Your task to perform on an android device: allow notifications from all sites in the chrome app Image 0: 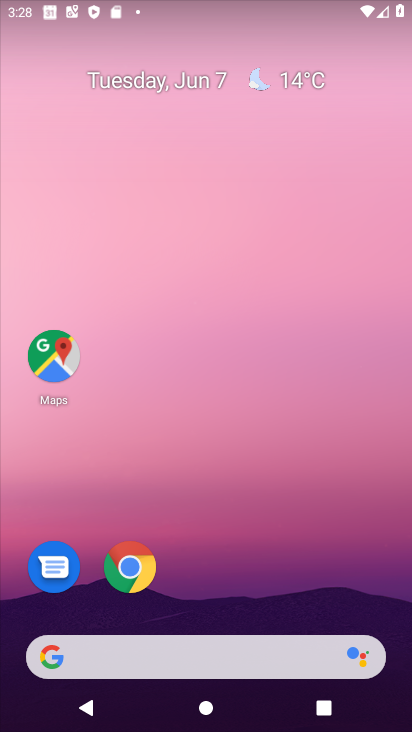
Step 0: click (120, 575)
Your task to perform on an android device: allow notifications from all sites in the chrome app Image 1: 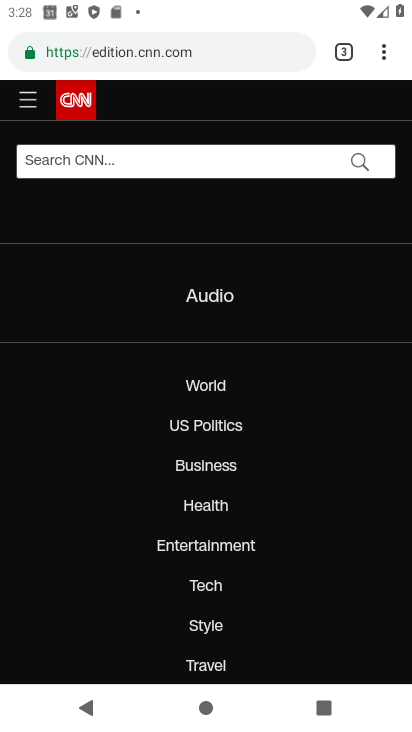
Step 1: click (385, 39)
Your task to perform on an android device: allow notifications from all sites in the chrome app Image 2: 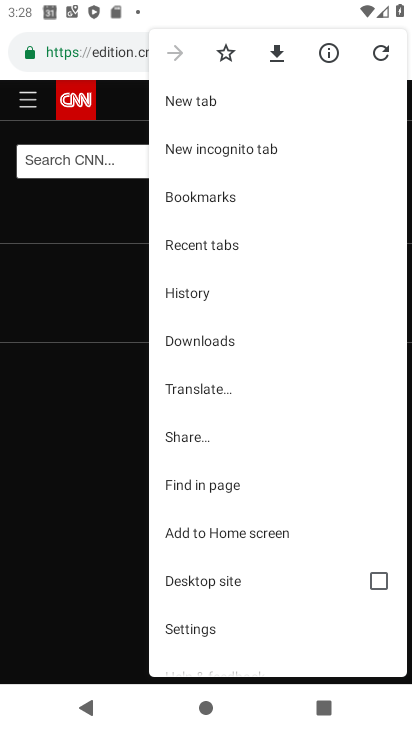
Step 2: click (234, 630)
Your task to perform on an android device: allow notifications from all sites in the chrome app Image 3: 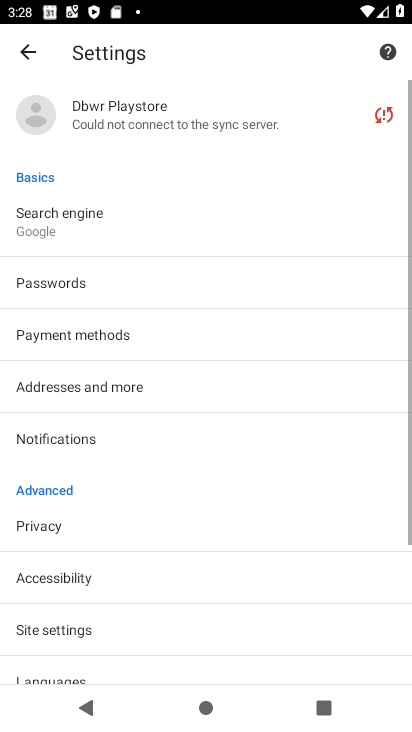
Step 3: drag from (210, 556) to (204, 312)
Your task to perform on an android device: allow notifications from all sites in the chrome app Image 4: 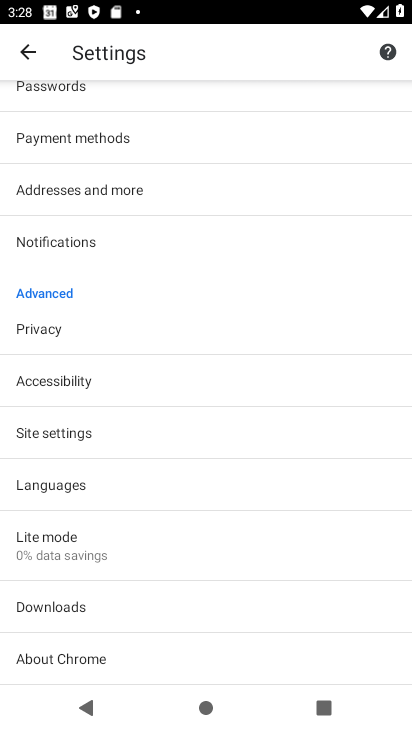
Step 4: click (106, 434)
Your task to perform on an android device: allow notifications from all sites in the chrome app Image 5: 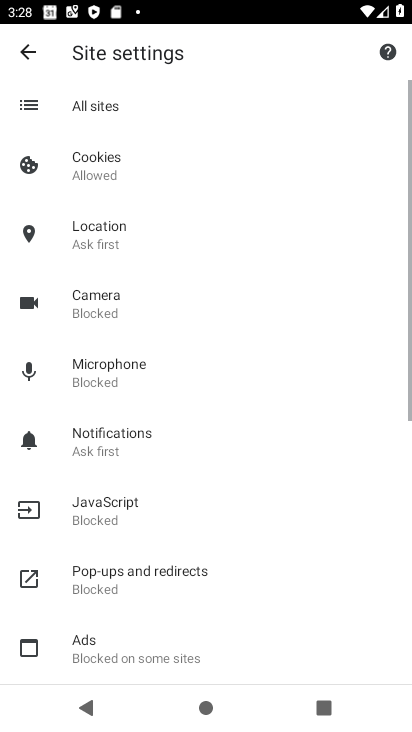
Step 5: click (154, 118)
Your task to perform on an android device: allow notifications from all sites in the chrome app Image 6: 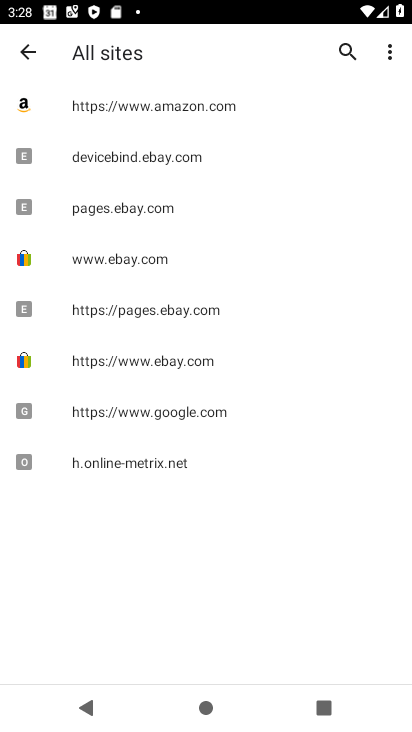
Step 6: click (200, 412)
Your task to perform on an android device: allow notifications from all sites in the chrome app Image 7: 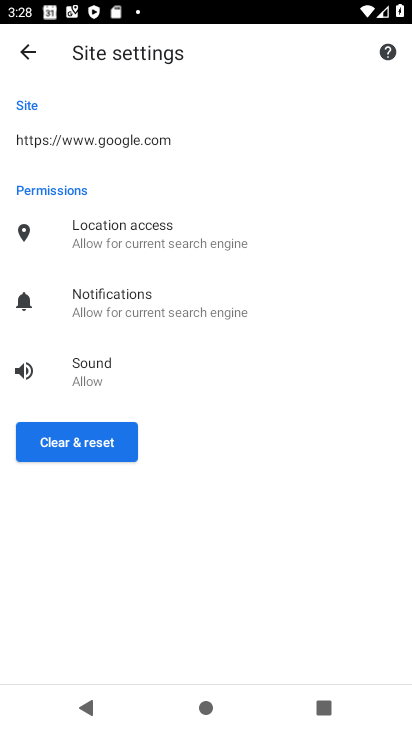
Step 7: click (141, 310)
Your task to perform on an android device: allow notifications from all sites in the chrome app Image 8: 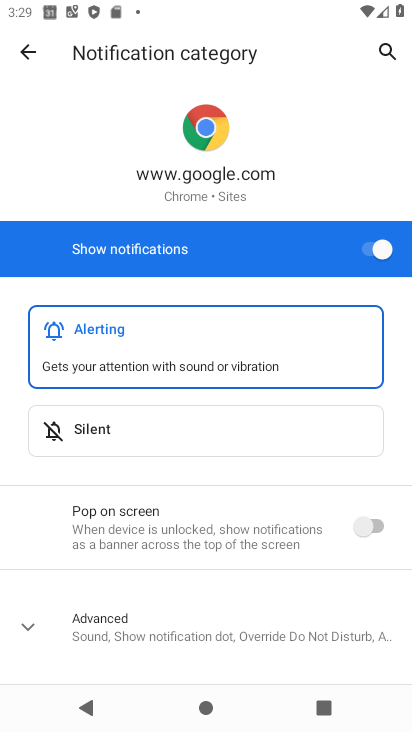
Step 8: task complete